Your task to perform on an android device: Go to privacy settings Image 0: 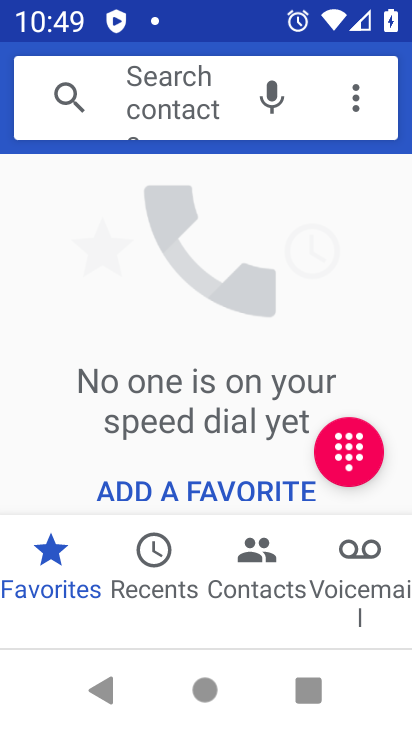
Step 0: press home button
Your task to perform on an android device: Go to privacy settings Image 1: 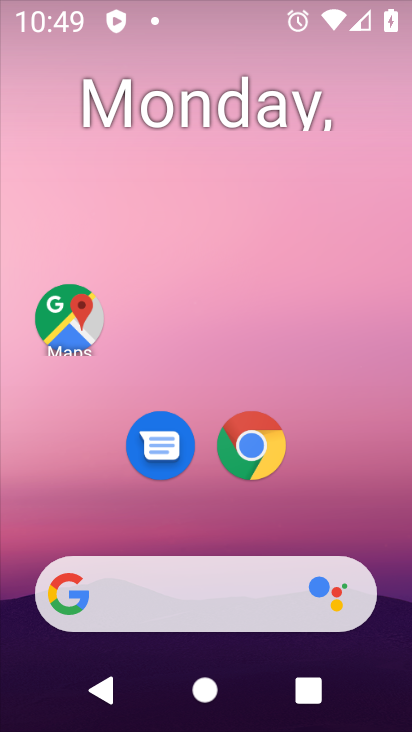
Step 1: drag from (317, 516) to (308, 75)
Your task to perform on an android device: Go to privacy settings Image 2: 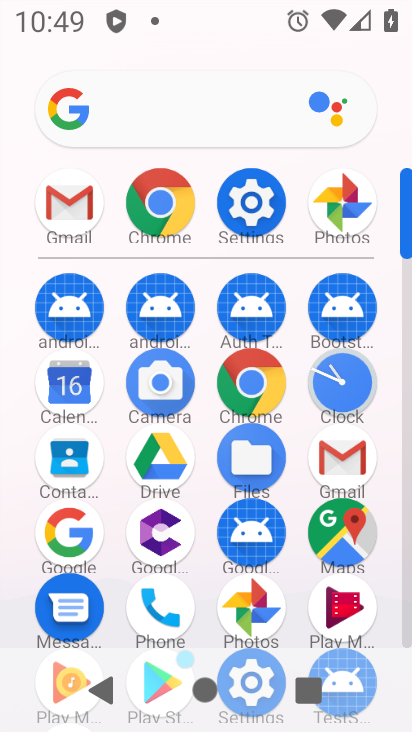
Step 2: click (255, 189)
Your task to perform on an android device: Go to privacy settings Image 3: 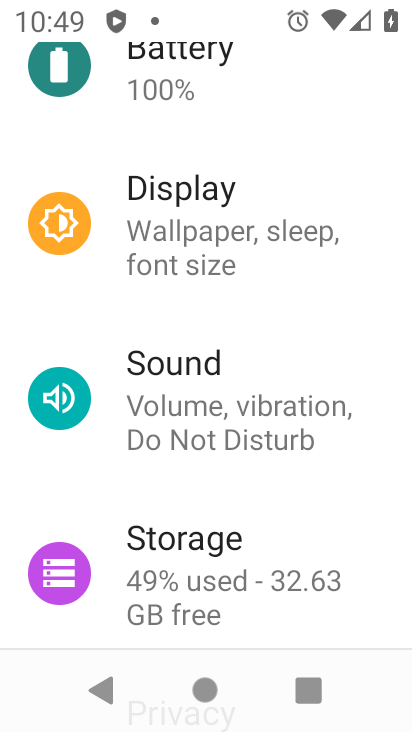
Step 3: drag from (267, 585) to (277, 132)
Your task to perform on an android device: Go to privacy settings Image 4: 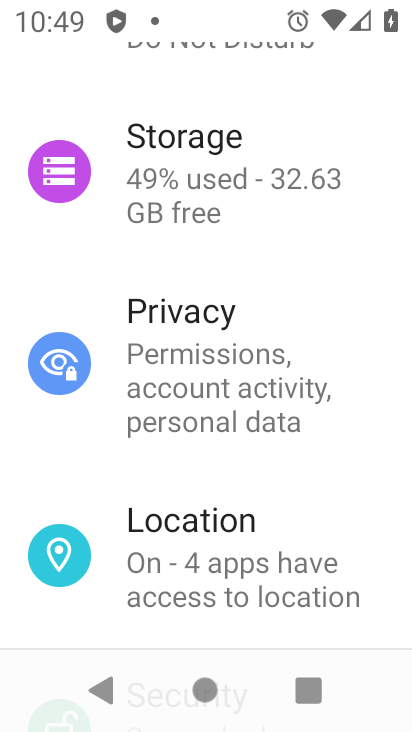
Step 4: click (196, 355)
Your task to perform on an android device: Go to privacy settings Image 5: 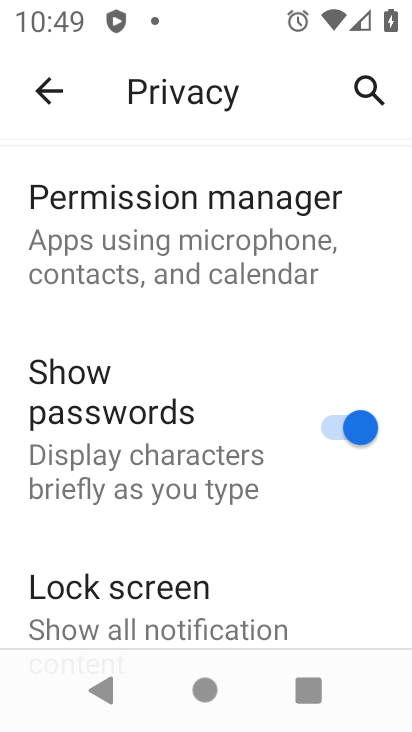
Step 5: task complete